Your task to perform on an android device: Open Google Chrome and open the bookmarks view Image 0: 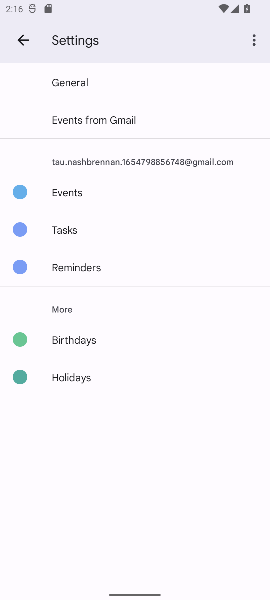
Step 0: press home button
Your task to perform on an android device: Open Google Chrome and open the bookmarks view Image 1: 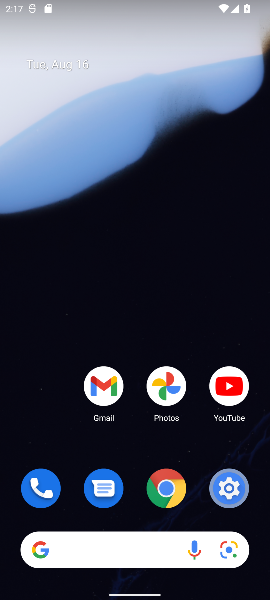
Step 1: click (168, 494)
Your task to perform on an android device: Open Google Chrome and open the bookmarks view Image 2: 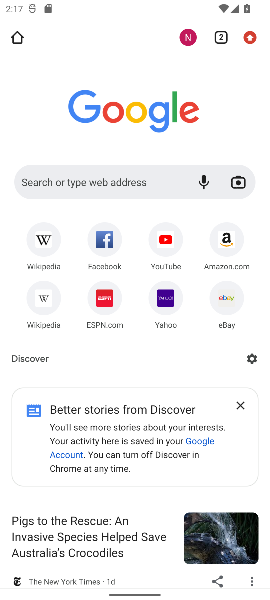
Step 2: click (254, 38)
Your task to perform on an android device: Open Google Chrome and open the bookmarks view Image 3: 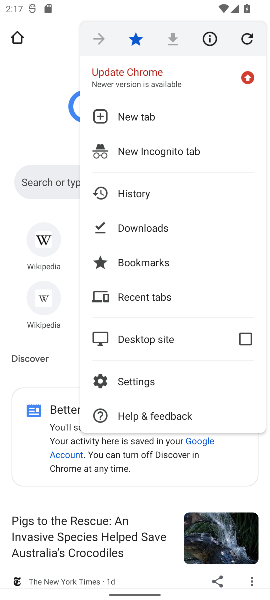
Step 3: task complete